Your task to perform on an android device: Go to network settings Image 0: 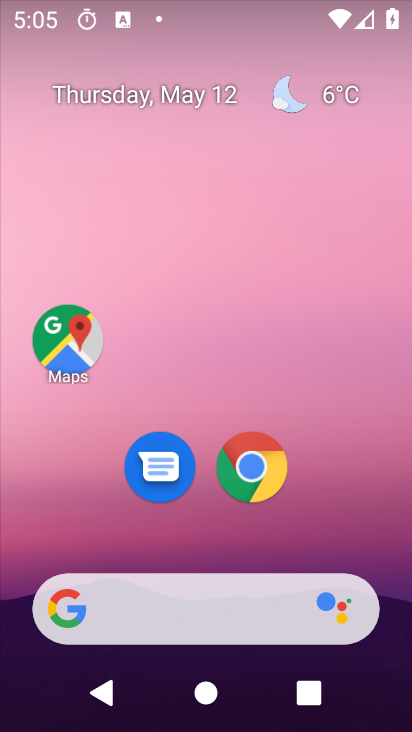
Step 0: drag from (217, 589) to (293, 98)
Your task to perform on an android device: Go to network settings Image 1: 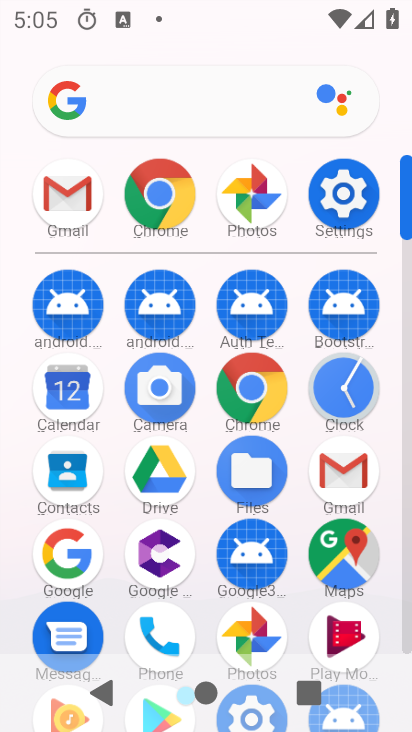
Step 1: click (337, 199)
Your task to perform on an android device: Go to network settings Image 2: 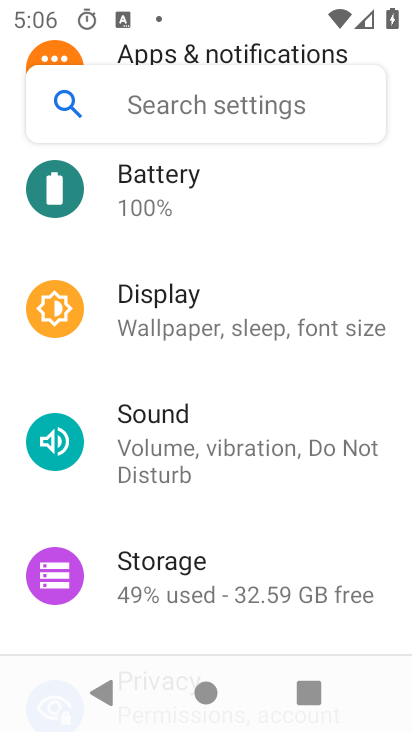
Step 2: drag from (289, 224) to (312, 685)
Your task to perform on an android device: Go to network settings Image 3: 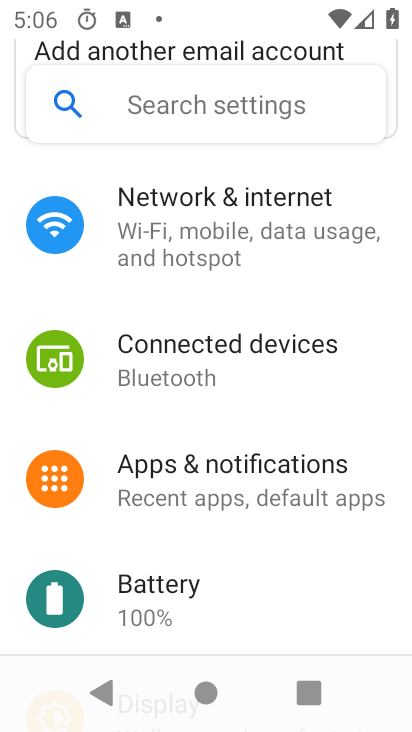
Step 3: click (269, 225)
Your task to perform on an android device: Go to network settings Image 4: 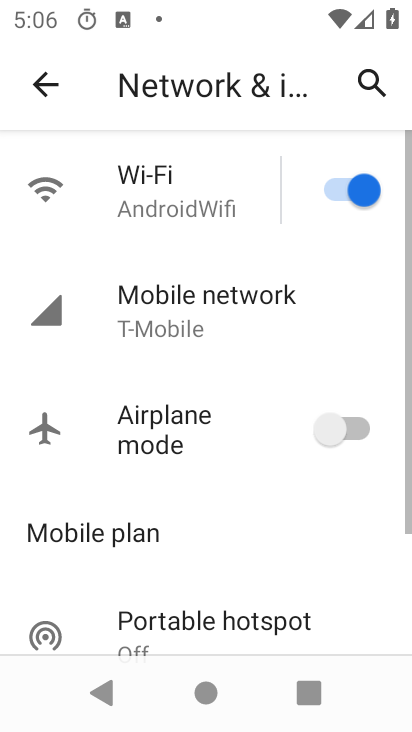
Step 4: task complete